Your task to perform on an android device: Open eBay Image 0: 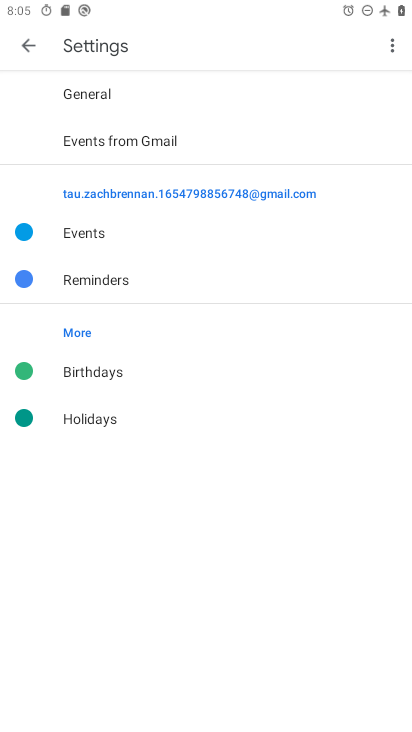
Step 0: press home button
Your task to perform on an android device: Open eBay Image 1: 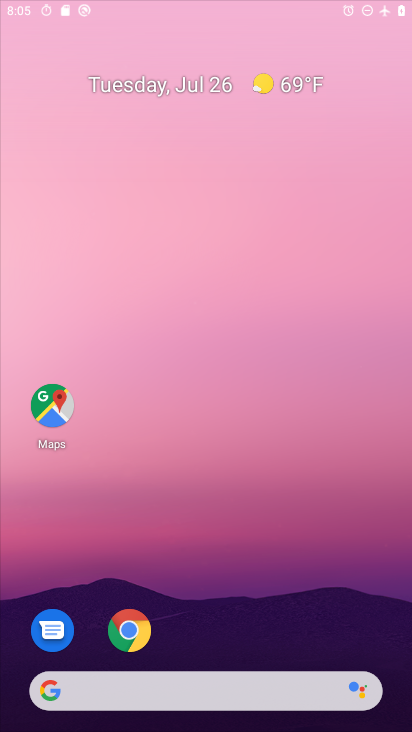
Step 1: drag from (274, 534) to (302, 4)
Your task to perform on an android device: Open eBay Image 2: 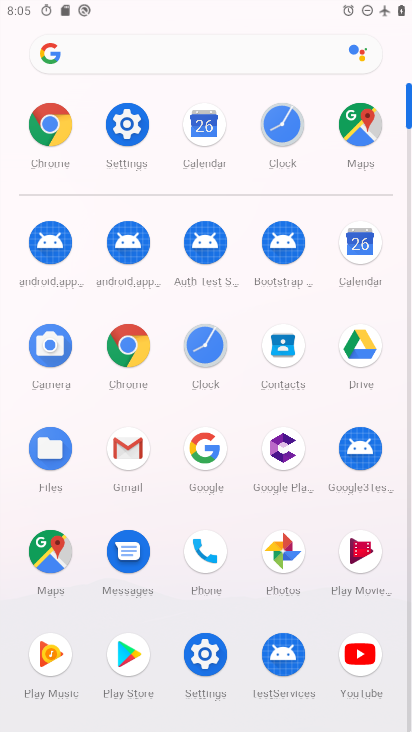
Step 2: click (140, 358)
Your task to perform on an android device: Open eBay Image 3: 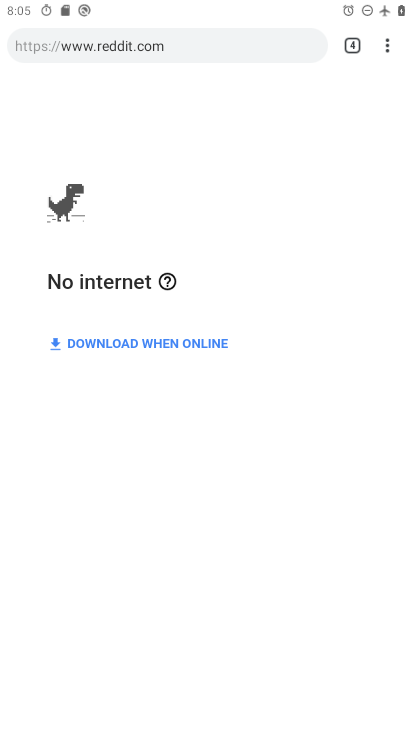
Step 3: task complete